Your task to perform on an android device: change the clock display to analog Image 0: 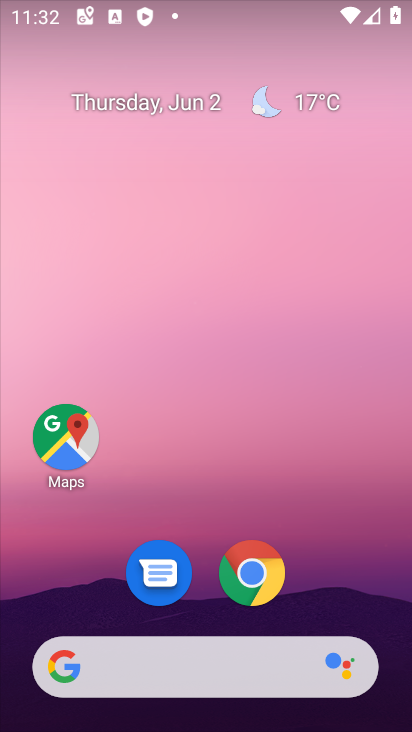
Step 0: drag from (326, 603) to (313, 30)
Your task to perform on an android device: change the clock display to analog Image 1: 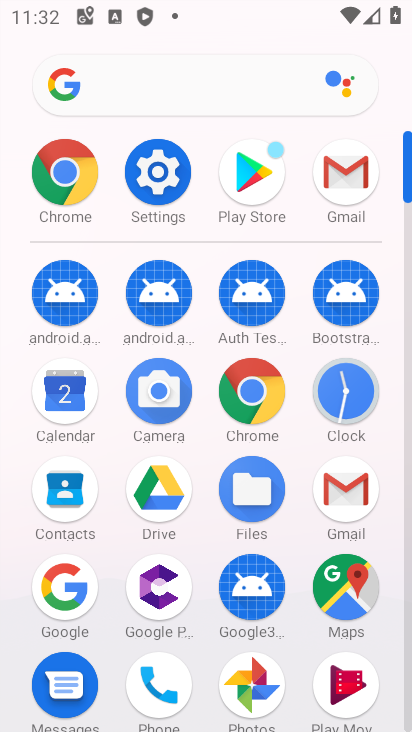
Step 1: click (351, 368)
Your task to perform on an android device: change the clock display to analog Image 2: 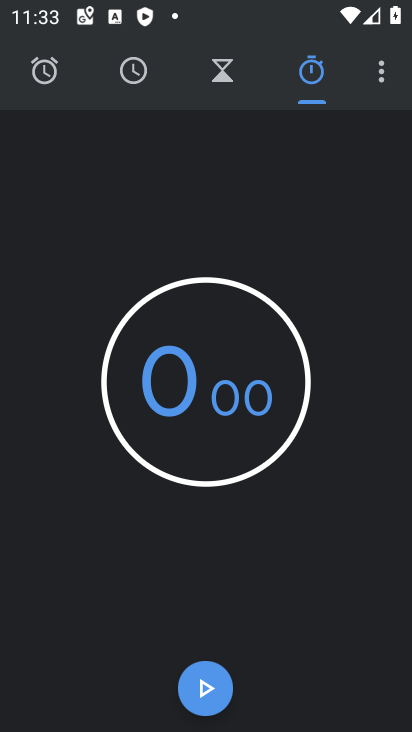
Step 2: click (404, 81)
Your task to perform on an android device: change the clock display to analog Image 3: 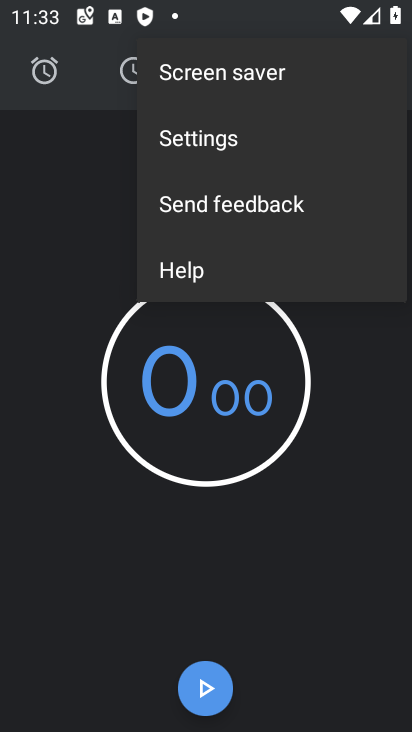
Step 3: click (202, 143)
Your task to perform on an android device: change the clock display to analog Image 4: 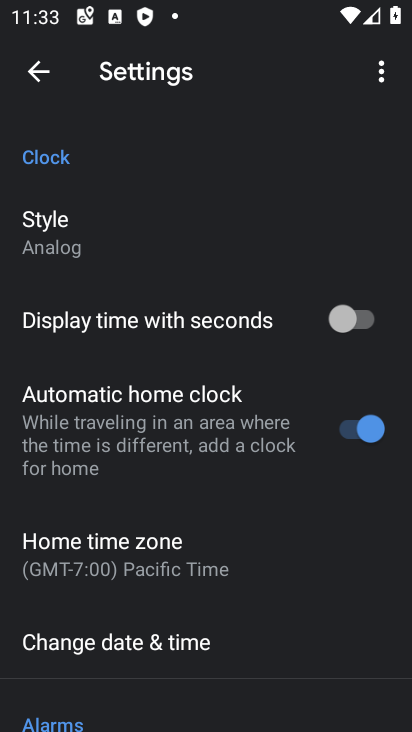
Step 4: task complete